Your task to perform on an android device: Go to display settings Image 0: 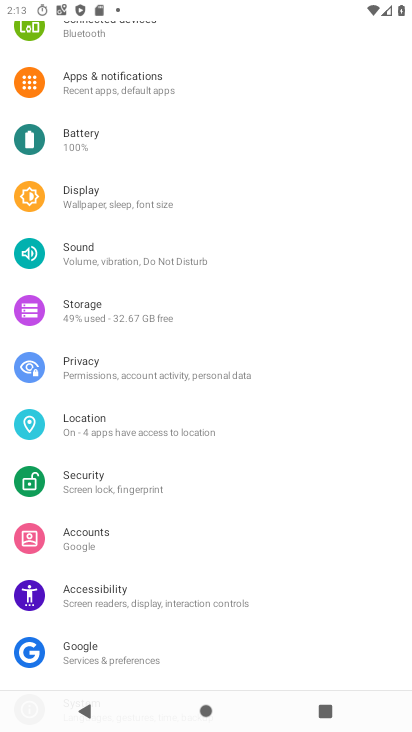
Step 0: click (85, 202)
Your task to perform on an android device: Go to display settings Image 1: 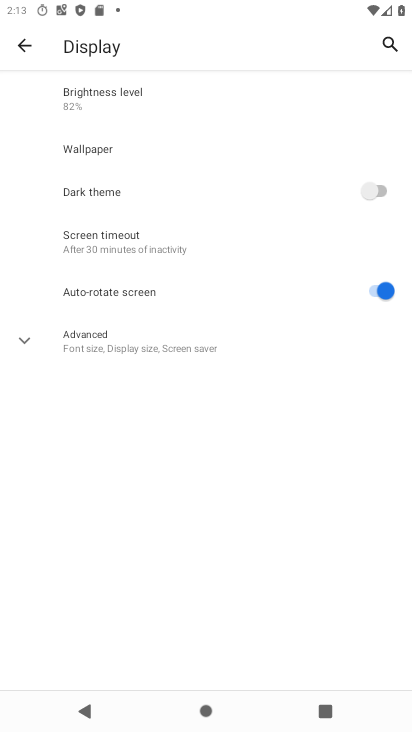
Step 1: click (100, 343)
Your task to perform on an android device: Go to display settings Image 2: 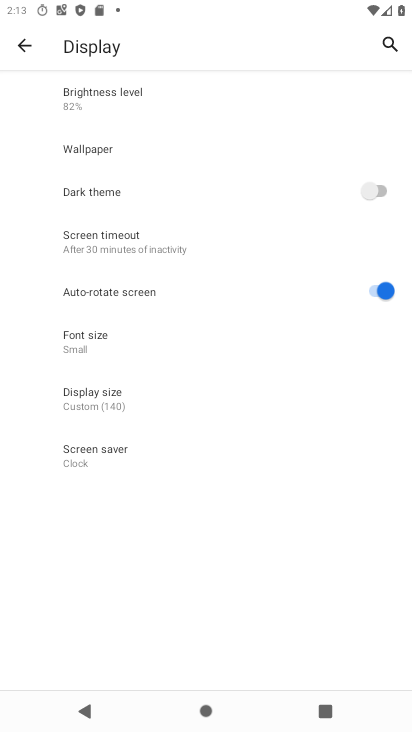
Step 2: task complete